Your task to perform on an android device: turn on location history Image 0: 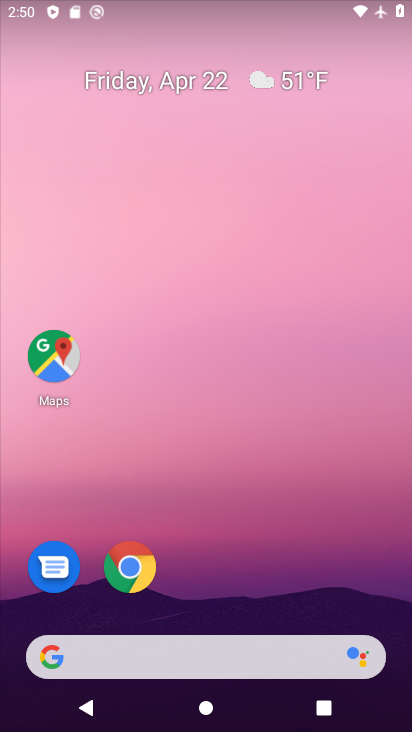
Step 0: drag from (236, 660) to (100, 189)
Your task to perform on an android device: turn on location history Image 1: 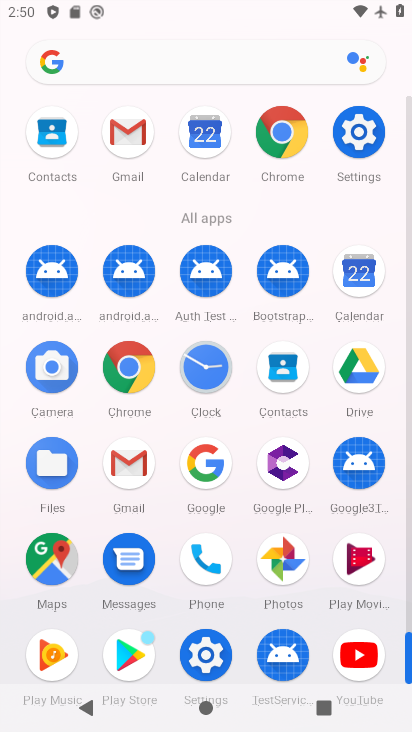
Step 1: click (59, 548)
Your task to perform on an android device: turn on location history Image 2: 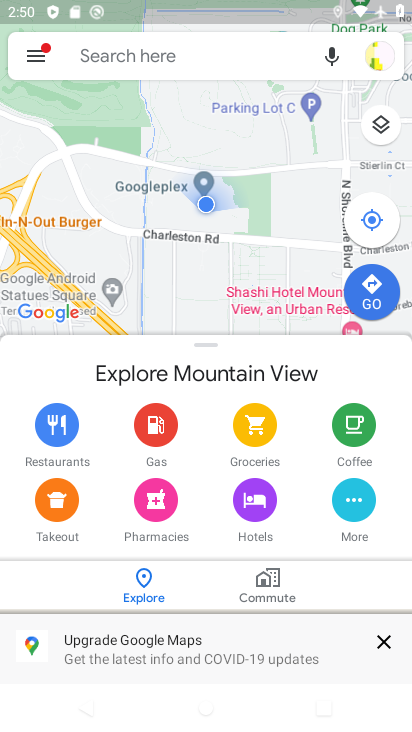
Step 2: click (29, 57)
Your task to perform on an android device: turn on location history Image 3: 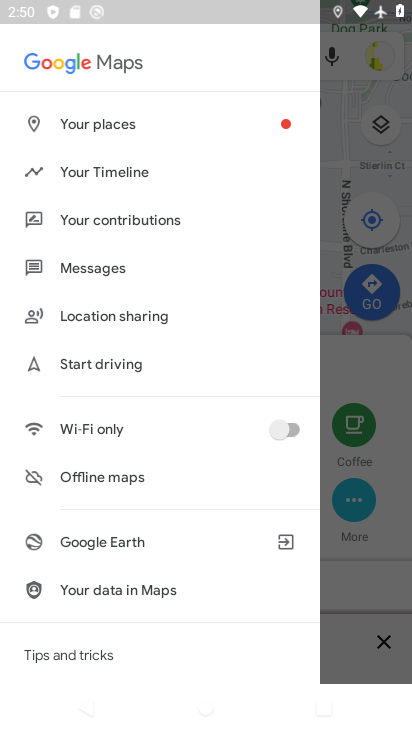
Step 3: click (104, 174)
Your task to perform on an android device: turn on location history Image 4: 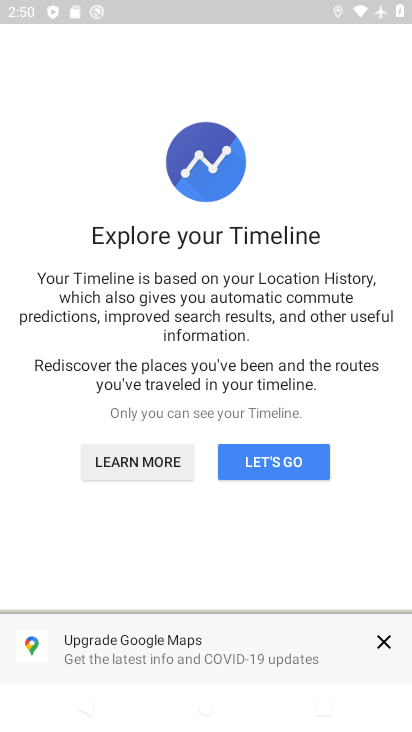
Step 4: click (289, 458)
Your task to perform on an android device: turn on location history Image 5: 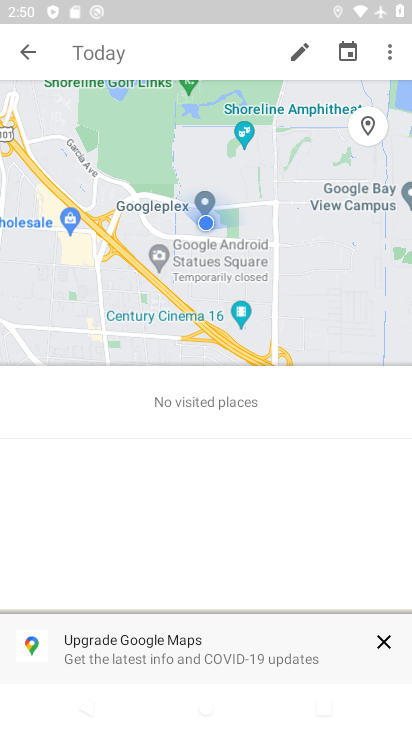
Step 5: click (385, 50)
Your task to perform on an android device: turn on location history Image 6: 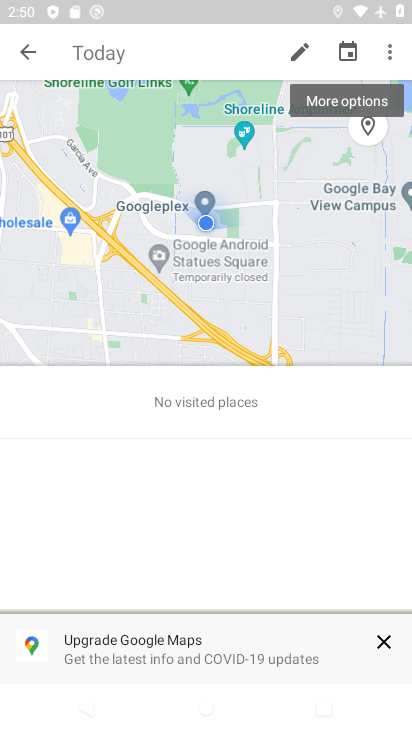
Step 6: click (385, 50)
Your task to perform on an android device: turn on location history Image 7: 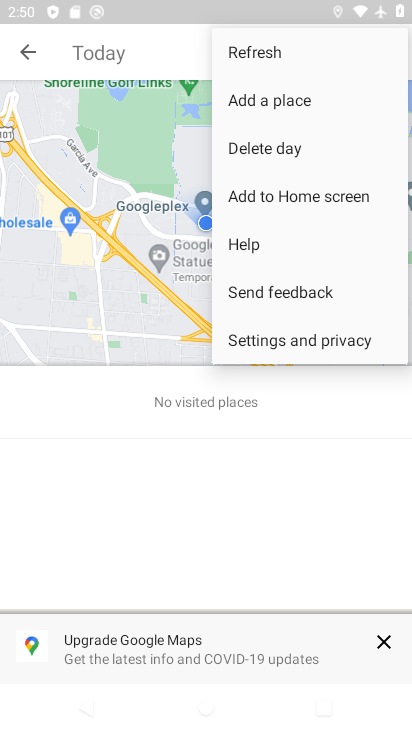
Step 7: click (253, 341)
Your task to perform on an android device: turn on location history Image 8: 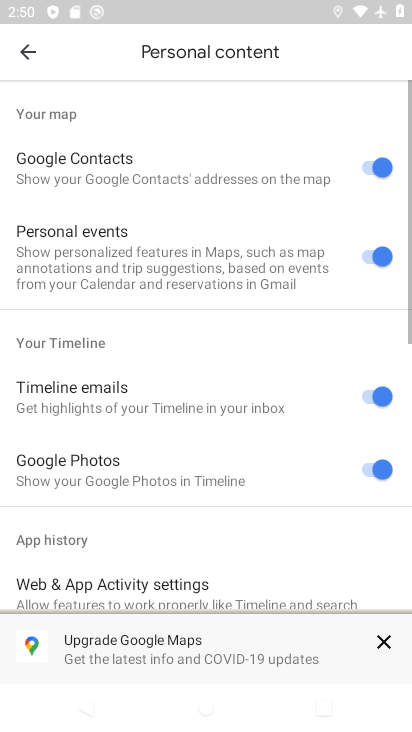
Step 8: drag from (151, 493) to (89, 254)
Your task to perform on an android device: turn on location history Image 9: 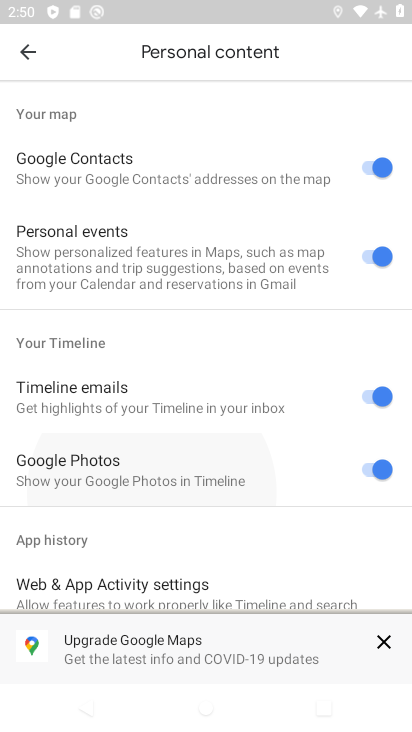
Step 9: drag from (178, 459) to (153, 165)
Your task to perform on an android device: turn on location history Image 10: 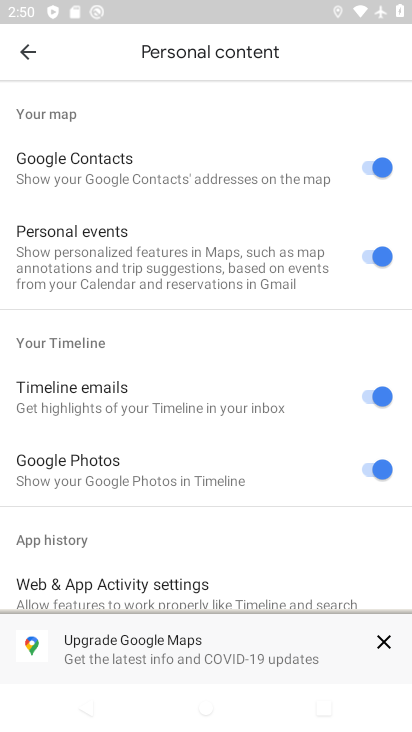
Step 10: click (22, 45)
Your task to perform on an android device: turn on location history Image 11: 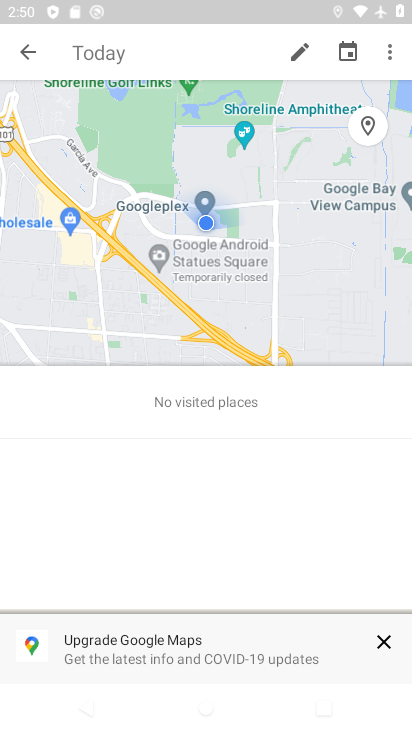
Step 11: click (390, 53)
Your task to perform on an android device: turn on location history Image 12: 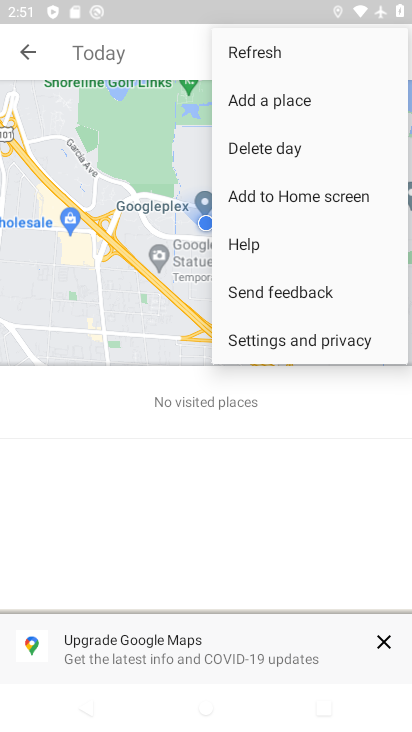
Step 12: click (280, 332)
Your task to perform on an android device: turn on location history Image 13: 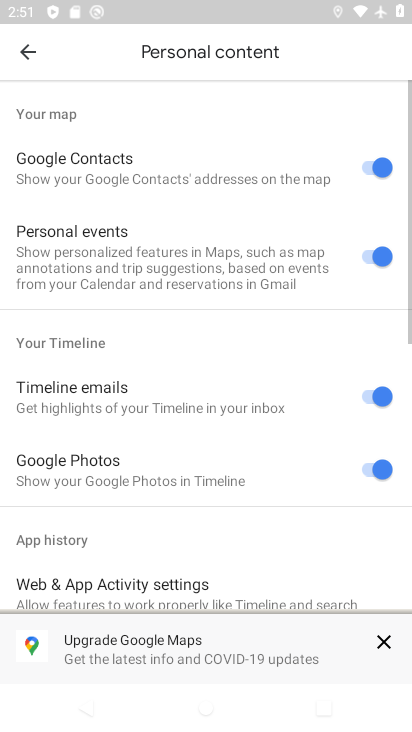
Step 13: drag from (140, 541) to (67, 81)
Your task to perform on an android device: turn on location history Image 14: 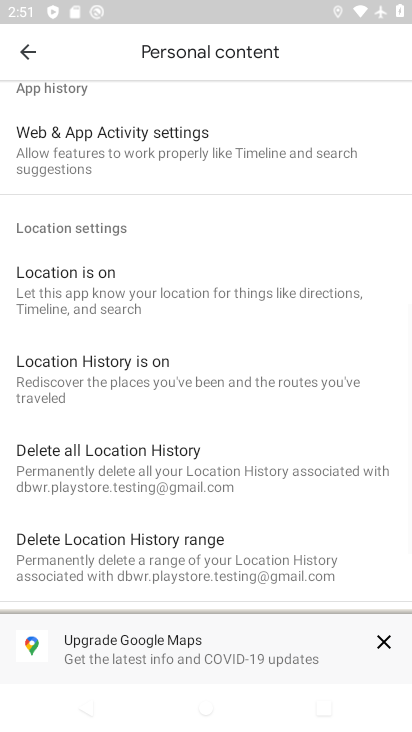
Step 14: drag from (158, 565) to (112, 71)
Your task to perform on an android device: turn on location history Image 15: 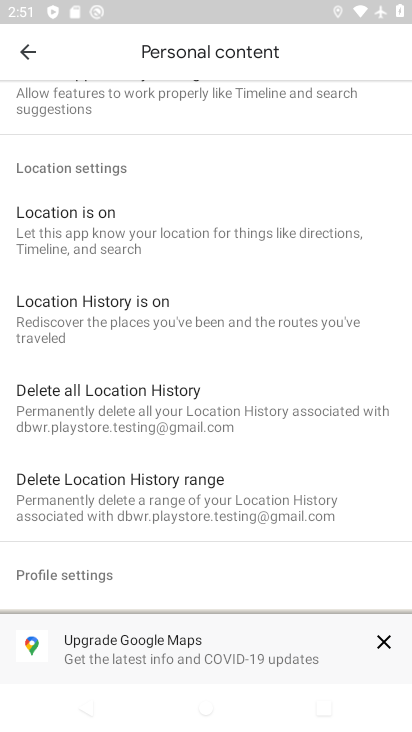
Step 15: click (88, 306)
Your task to perform on an android device: turn on location history Image 16: 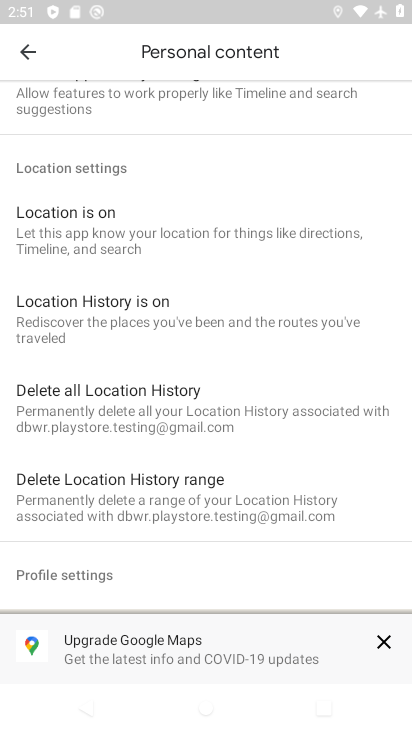
Step 16: click (88, 306)
Your task to perform on an android device: turn on location history Image 17: 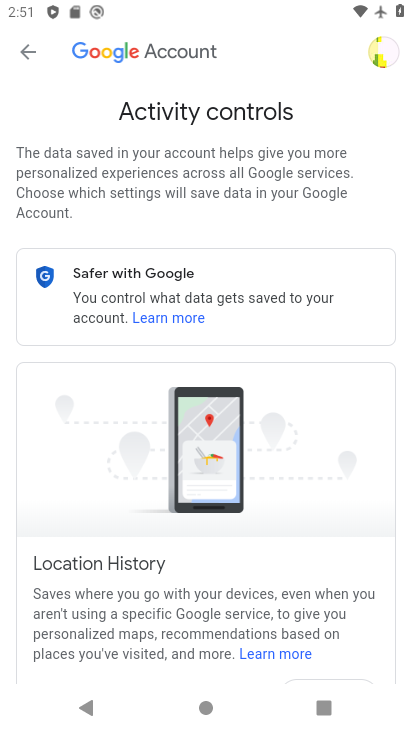
Step 17: task complete